Your task to perform on an android device: Open internet settings Image 0: 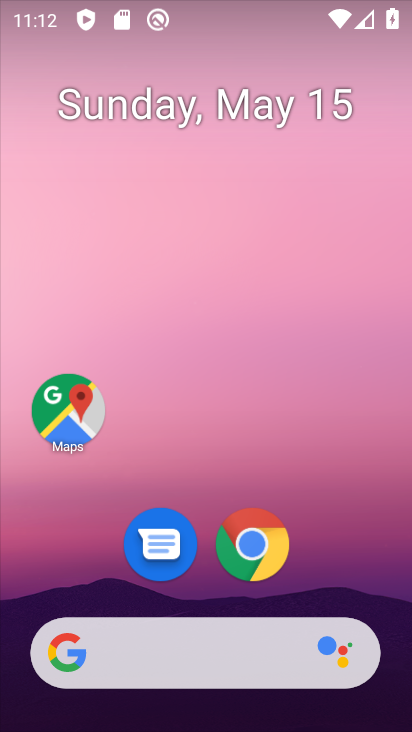
Step 0: drag from (356, 592) to (230, 76)
Your task to perform on an android device: Open internet settings Image 1: 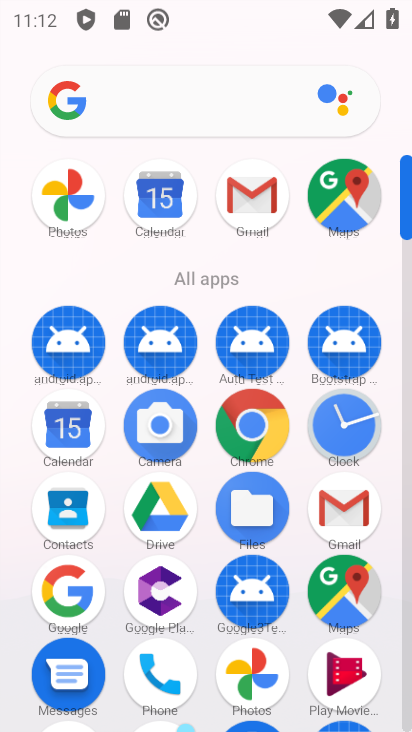
Step 1: click (272, 421)
Your task to perform on an android device: Open internet settings Image 2: 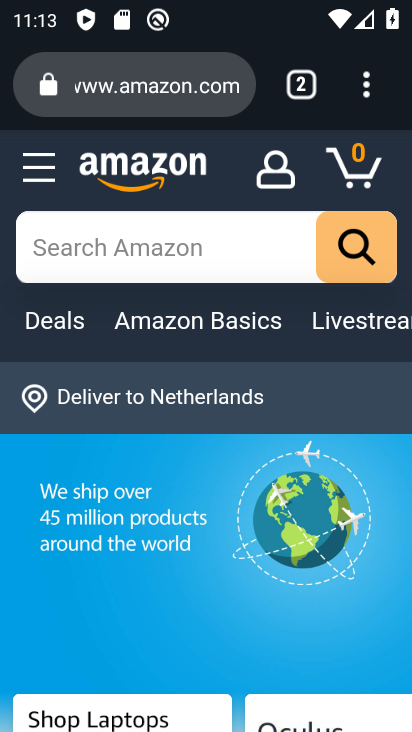
Step 2: press home button
Your task to perform on an android device: Open internet settings Image 3: 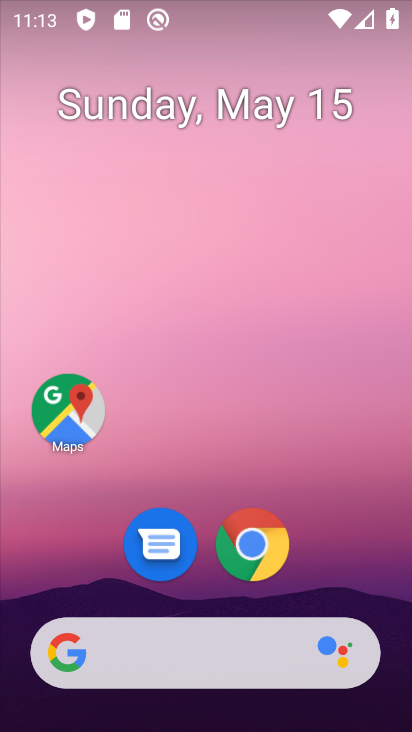
Step 3: drag from (374, 580) to (221, 83)
Your task to perform on an android device: Open internet settings Image 4: 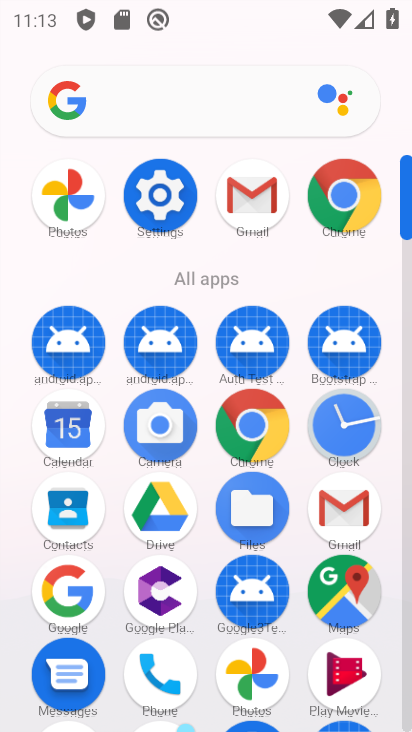
Step 4: click (172, 181)
Your task to perform on an android device: Open internet settings Image 5: 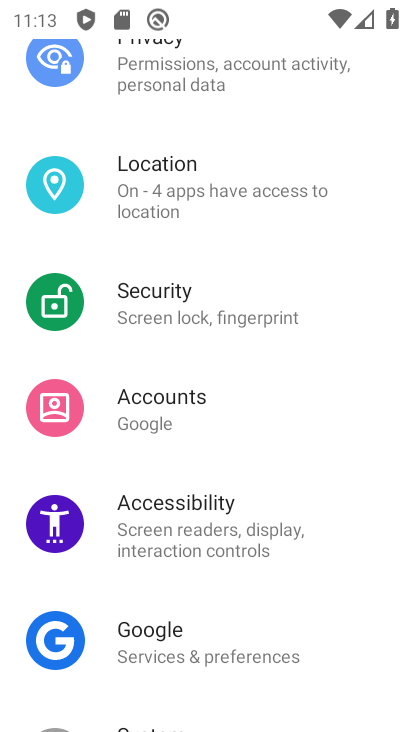
Step 5: drag from (213, 136) to (258, 697)
Your task to perform on an android device: Open internet settings Image 6: 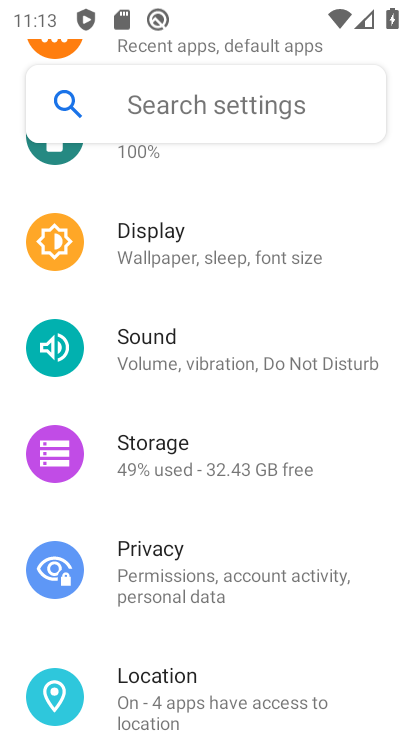
Step 6: drag from (234, 178) to (259, 650)
Your task to perform on an android device: Open internet settings Image 7: 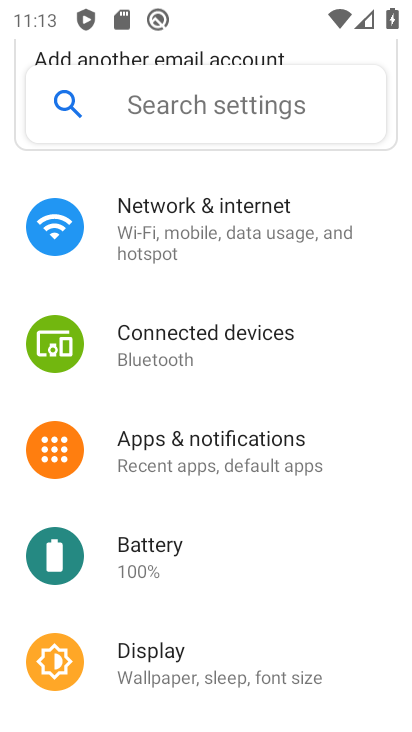
Step 7: click (207, 219)
Your task to perform on an android device: Open internet settings Image 8: 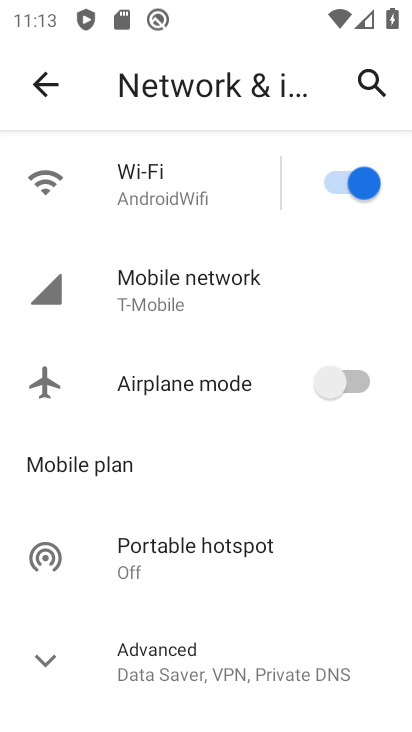
Step 8: task complete